Your task to perform on an android device: turn off wifi Image 0: 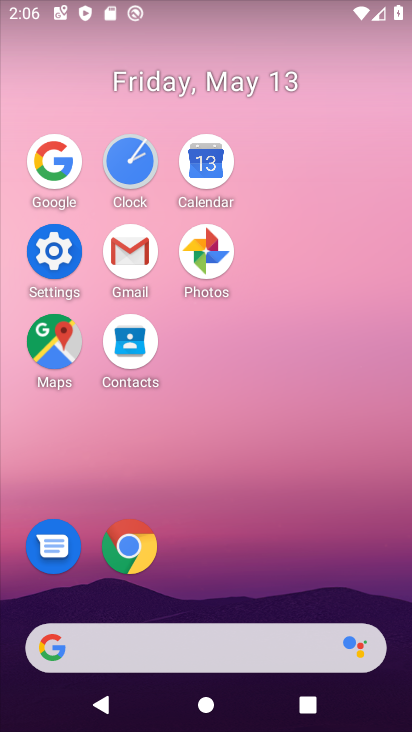
Step 0: click (41, 250)
Your task to perform on an android device: turn off wifi Image 1: 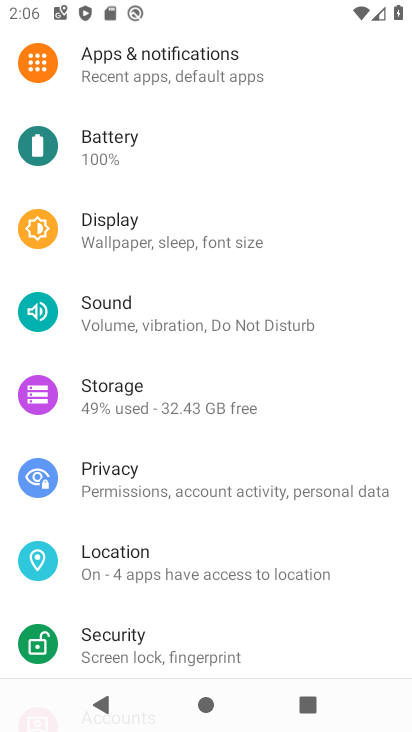
Step 1: drag from (357, 154) to (276, 513)
Your task to perform on an android device: turn off wifi Image 2: 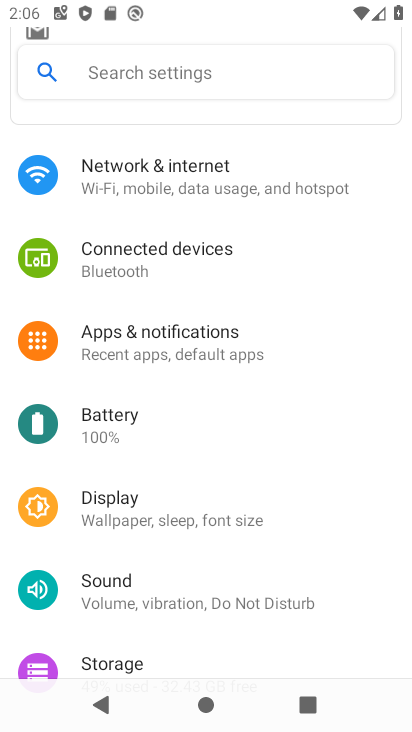
Step 2: click (203, 183)
Your task to perform on an android device: turn off wifi Image 3: 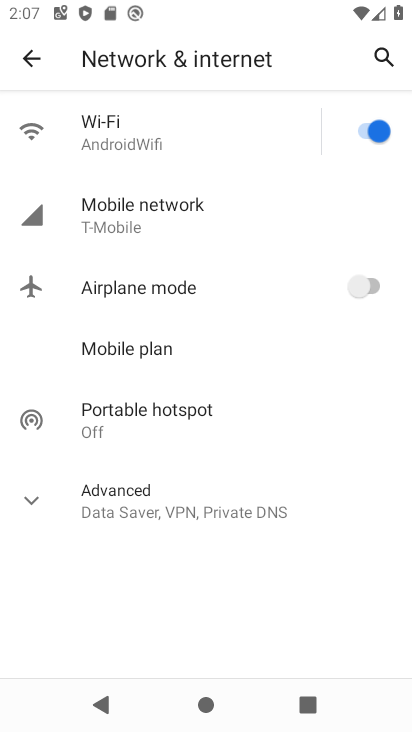
Step 3: click (386, 128)
Your task to perform on an android device: turn off wifi Image 4: 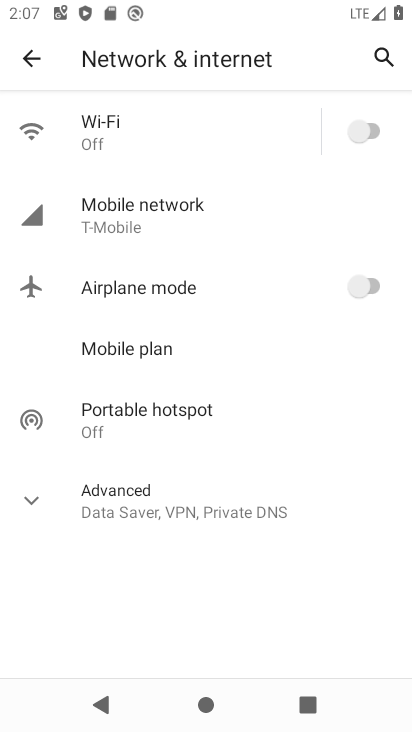
Step 4: task complete